Your task to perform on an android device: turn on bluetooth scan Image 0: 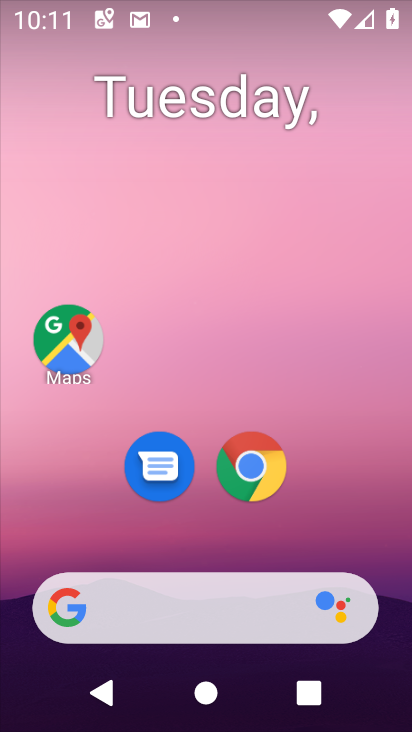
Step 0: drag from (224, 648) to (188, 197)
Your task to perform on an android device: turn on bluetooth scan Image 1: 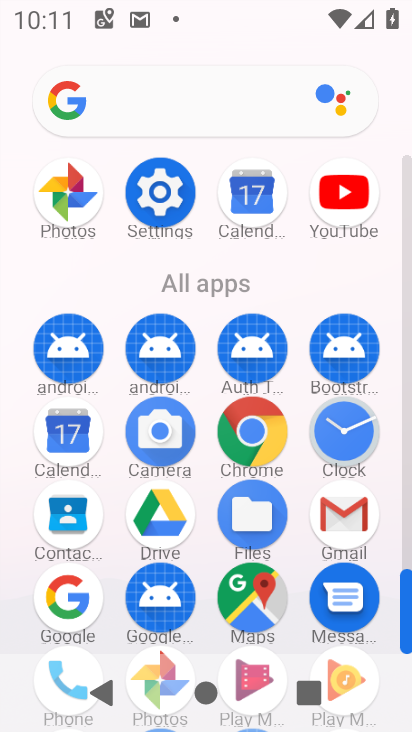
Step 1: click (157, 179)
Your task to perform on an android device: turn on bluetooth scan Image 2: 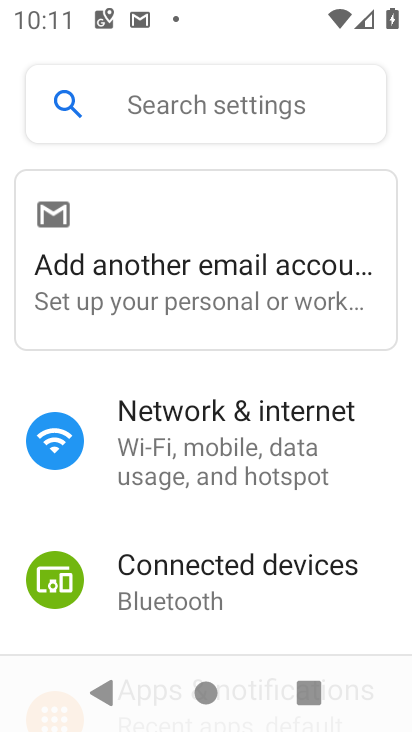
Step 2: click (221, 103)
Your task to perform on an android device: turn on bluetooth scan Image 3: 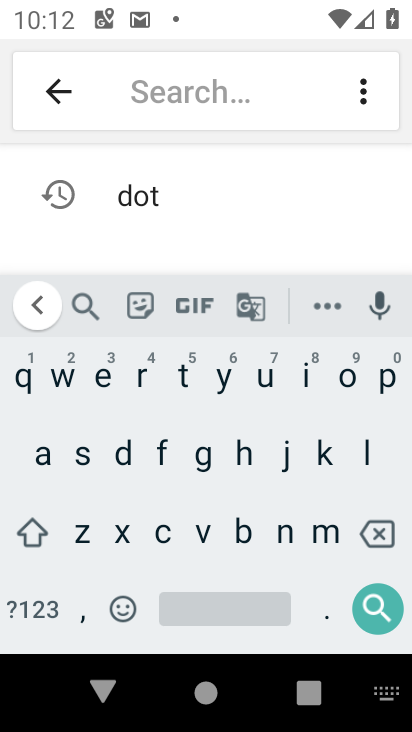
Step 3: click (374, 444)
Your task to perform on an android device: turn on bluetooth scan Image 4: 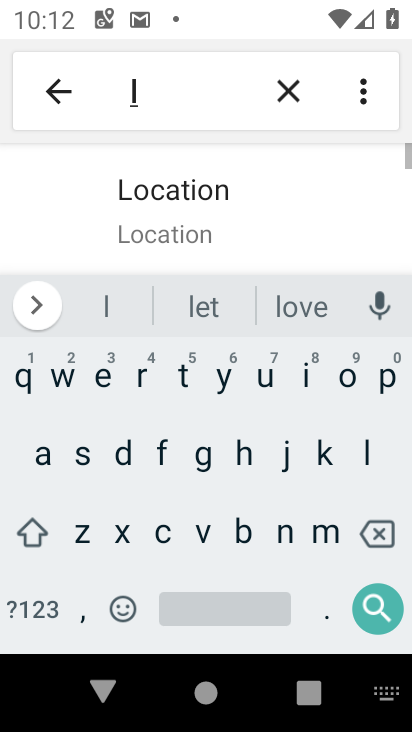
Step 4: click (348, 375)
Your task to perform on an android device: turn on bluetooth scan Image 5: 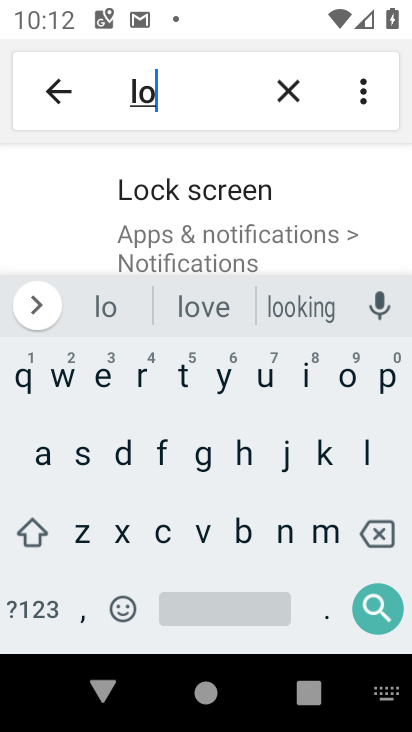
Step 5: drag from (261, 227) to (213, 153)
Your task to perform on an android device: turn on bluetooth scan Image 6: 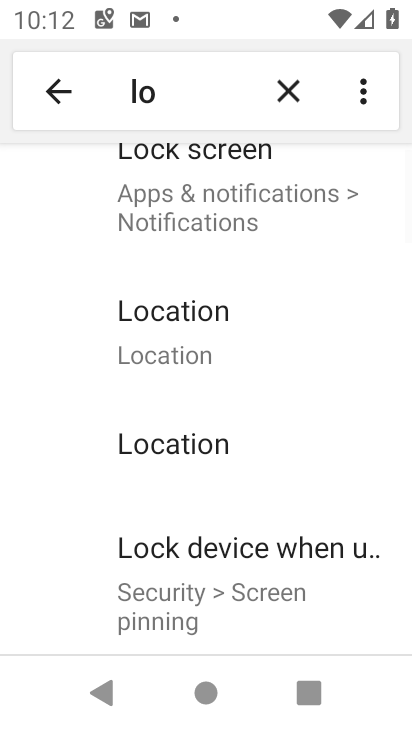
Step 6: click (191, 349)
Your task to perform on an android device: turn on bluetooth scan Image 7: 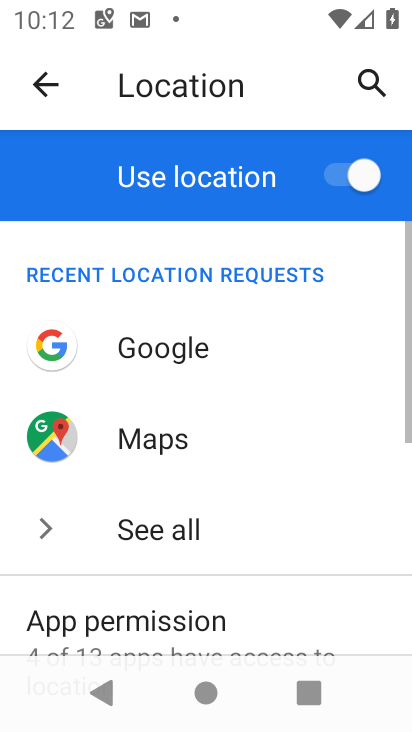
Step 7: drag from (146, 538) to (177, 227)
Your task to perform on an android device: turn on bluetooth scan Image 8: 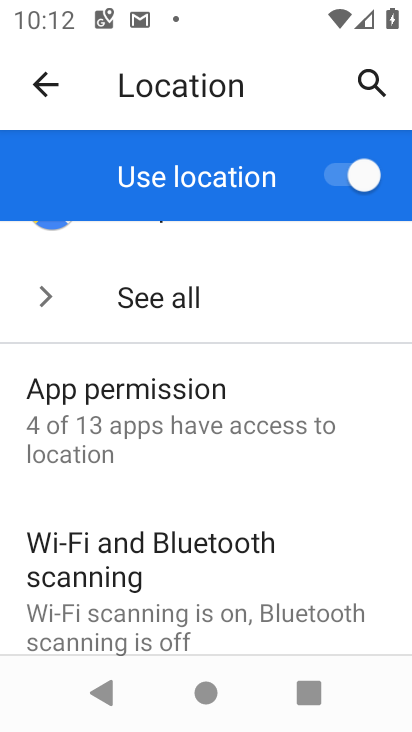
Step 8: click (187, 558)
Your task to perform on an android device: turn on bluetooth scan Image 9: 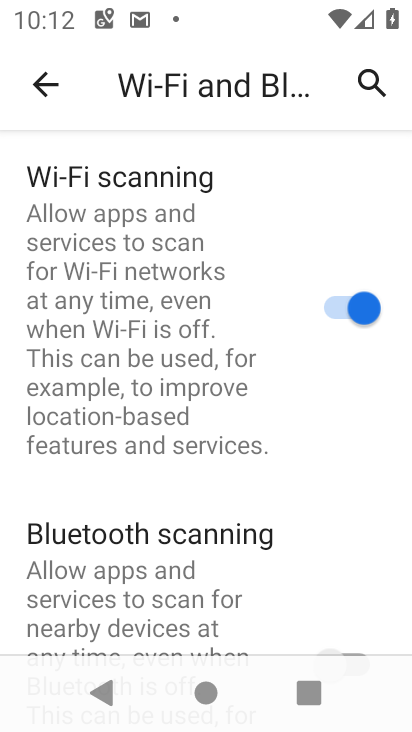
Step 9: drag from (249, 555) to (198, 298)
Your task to perform on an android device: turn on bluetooth scan Image 10: 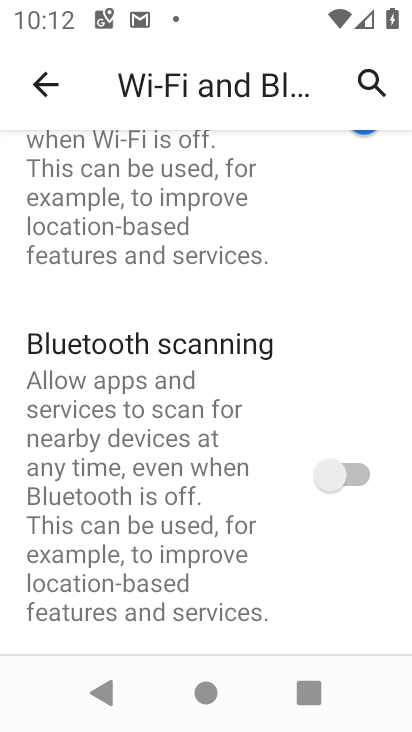
Step 10: click (337, 476)
Your task to perform on an android device: turn on bluetooth scan Image 11: 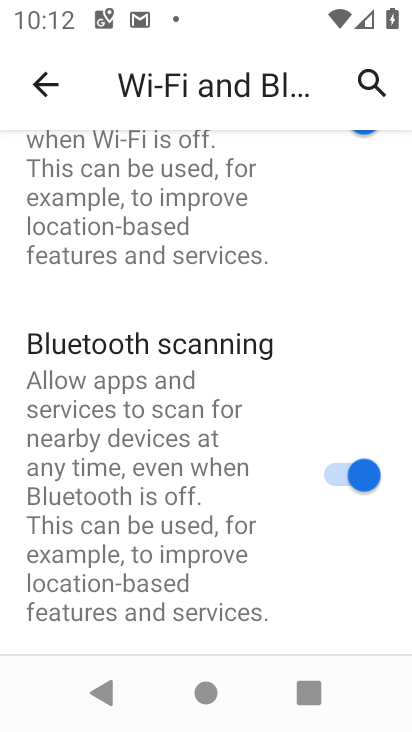
Step 11: task complete